Your task to perform on an android device: Show me the alarms in the clock app Image 0: 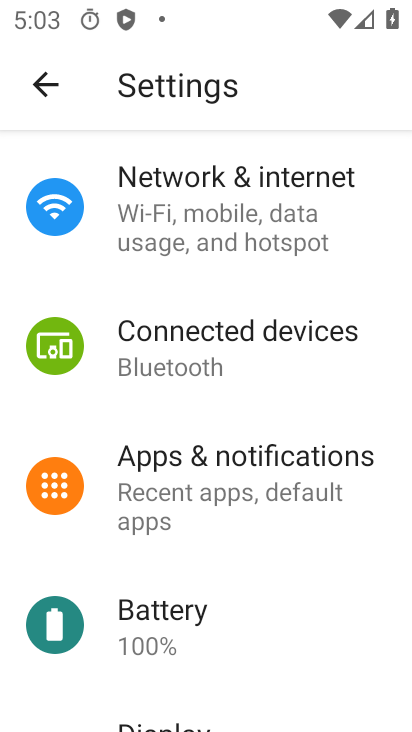
Step 0: press home button
Your task to perform on an android device: Show me the alarms in the clock app Image 1: 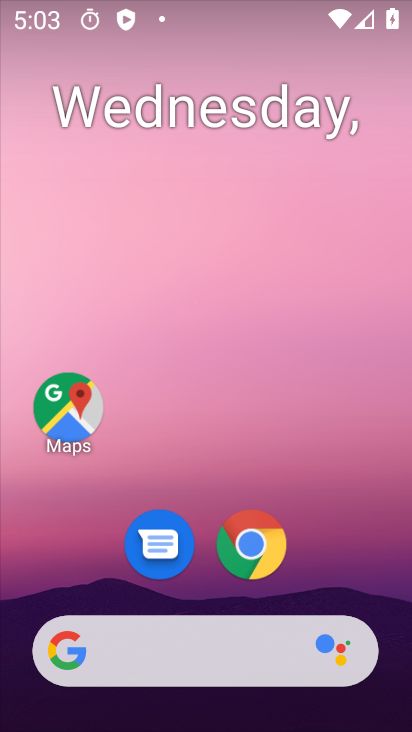
Step 1: drag from (223, 609) to (205, 40)
Your task to perform on an android device: Show me the alarms in the clock app Image 2: 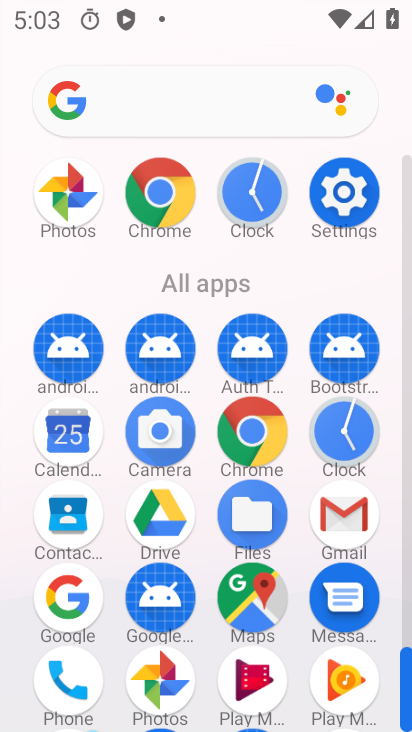
Step 2: click (244, 207)
Your task to perform on an android device: Show me the alarms in the clock app Image 3: 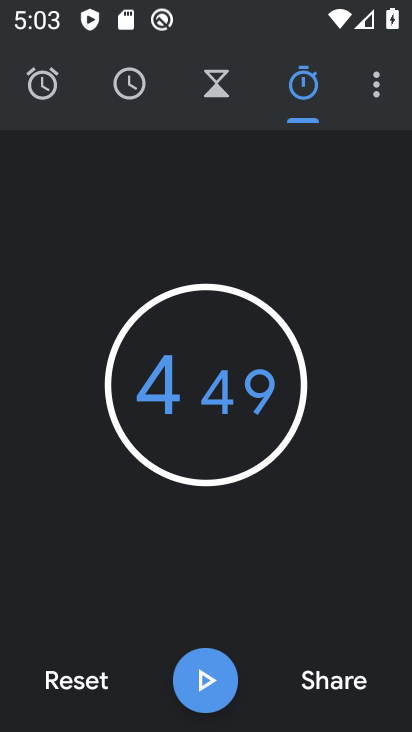
Step 3: click (43, 88)
Your task to perform on an android device: Show me the alarms in the clock app Image 4: 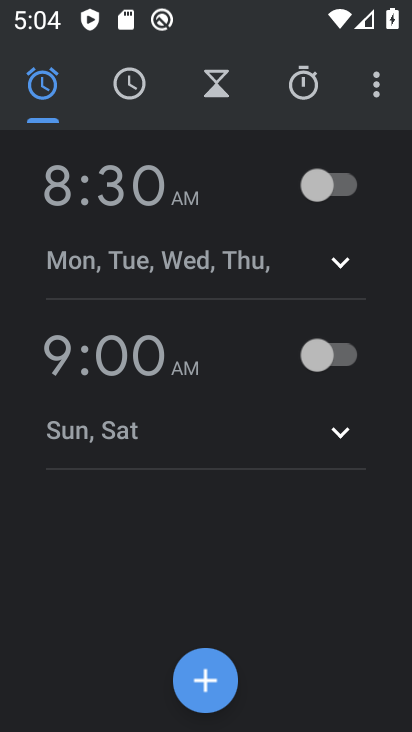
Step 4: task complete